Your task to perform on an android device: Search for a new bike on Walmart. Image 0: 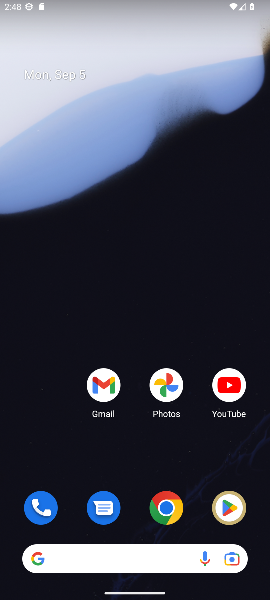
Step 0: click (165, 515)
Your task to perform on an android device: Search for a new bike on Walmart. Image 1: 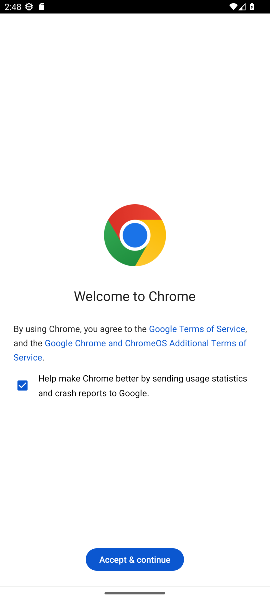
Step 1: click (122, 555)
Your task to perform on an android device: Search for a new bike on Walmart. Image 2: 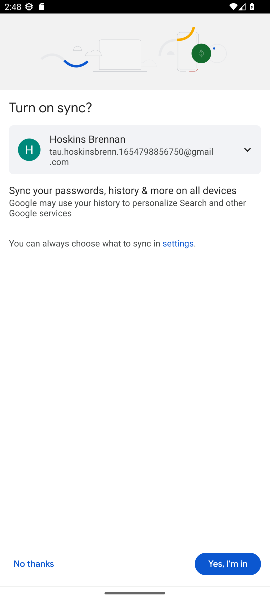
Step 2: click (215, 559)
Your task to perform on an android device: Search for a new bike on Walmart. Image 3: 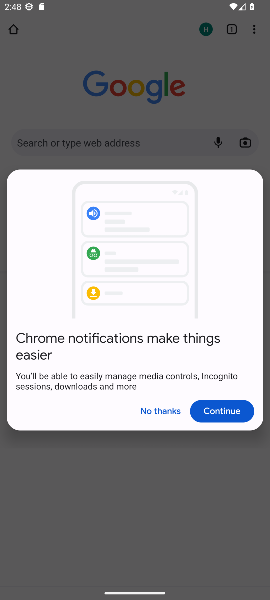
Step 3: click (219, 414)
Your task to perform on an android device: Search for a new bike on Walmart. Image 4: 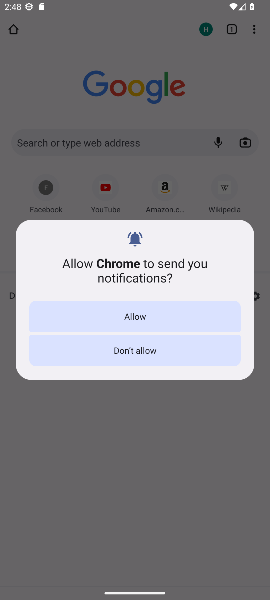
Step 4: click (132, 318)
Your task to perform on an android device: Search for a new bike on Walmart. Image 5: 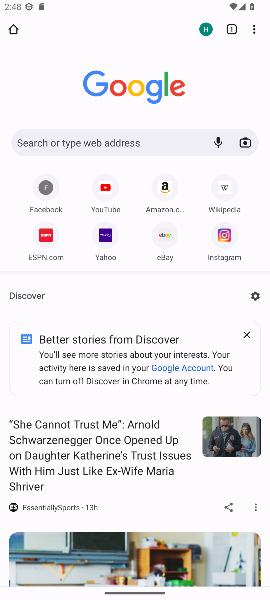
Step 5: click (107, 138)
Your task to perform on an android device: Search for a new bike on Walmart. Image 6: 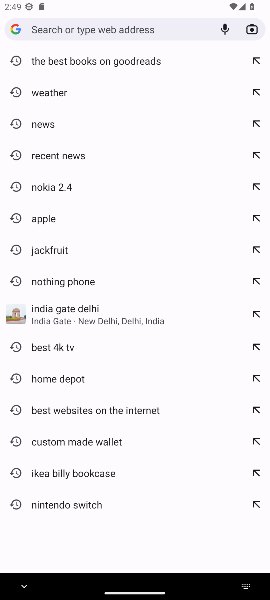
Step 6: type "a new bike on Walmart."
Your task to perform on an android device: Search for a new bike on Walmart. Image 7: 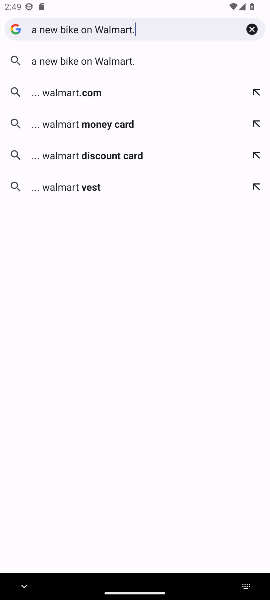
Step 7: click (88, 63)
Your task to perform on an android device: Search for a new bike on Walmart. Image 8: 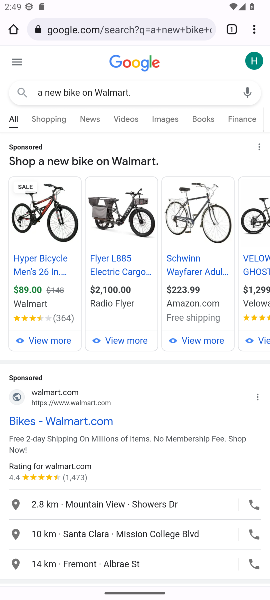
Step 8: task complete